Your task to perform on an android device: Turn on the flashlight Image 0: 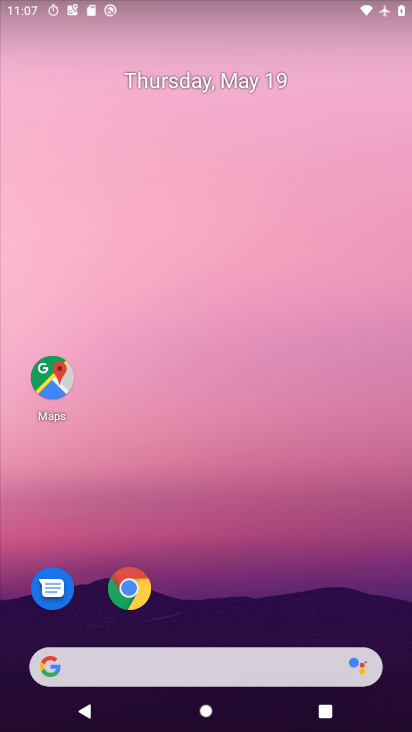
Step 0: drag from (219, 0) to (198, 407)
Your task to perform on an android device: Turn on the flashlight Image 1: 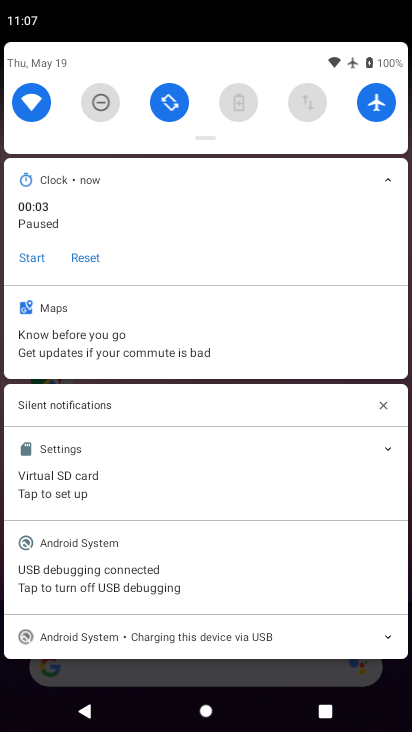
Step 1: task complete